Your task to perform on an android device: Is it going to rain this weekend? Image 0: 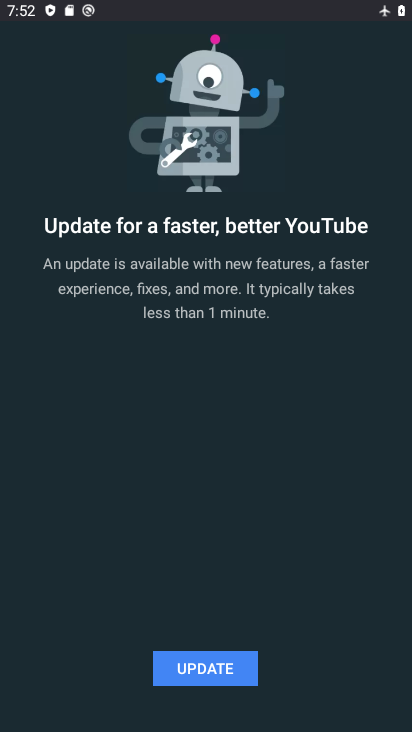
Step 0: press home button
Your task to perform on an android device: Is it going to rain this weekend? Image 1: 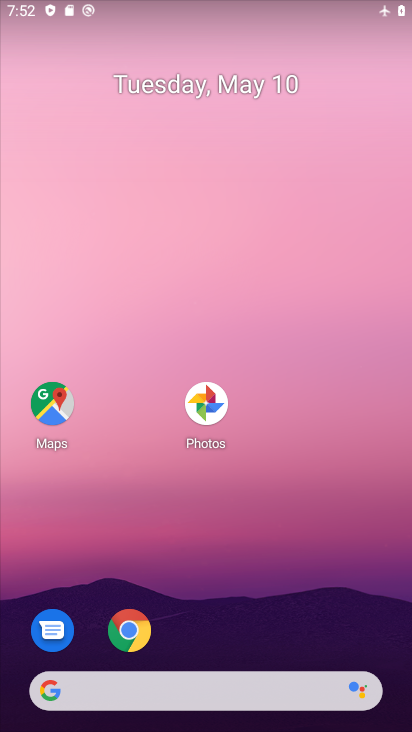
Step 1: click (189, 685)
Your task to perform on an android device: Is it going to rain this weekend? Image 2: 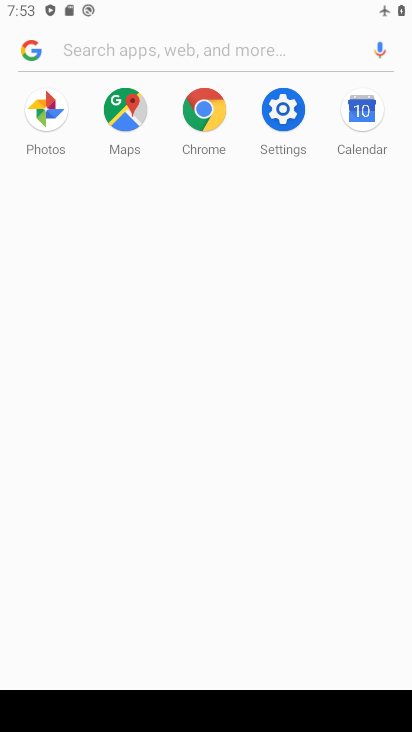
Step 2: type "weather"
Your task to perform on an android device: Is it going to rain this weekend? Image 3: 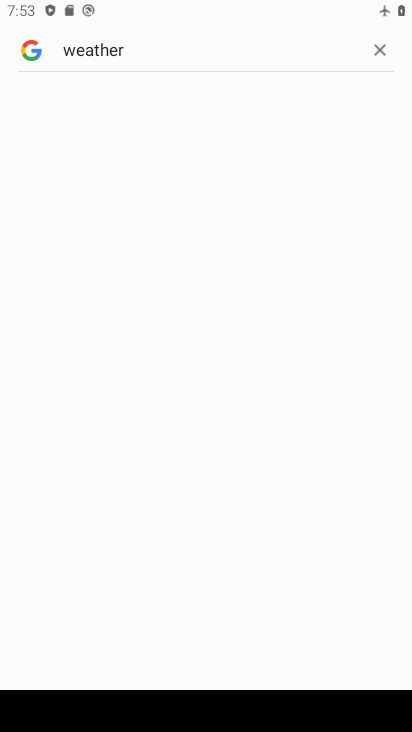
Step 3: task complete